Your task to perform on an android device: What's on my calendar today? Image 0: 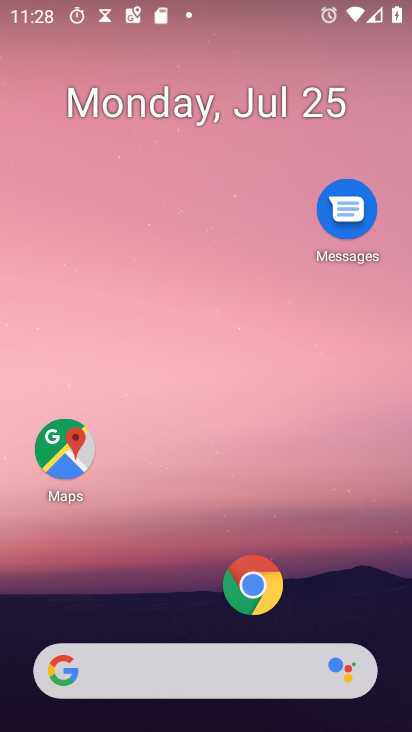
Step 0: press home button
Your task to perform on an android device: What's on my calendar today? Image 1: 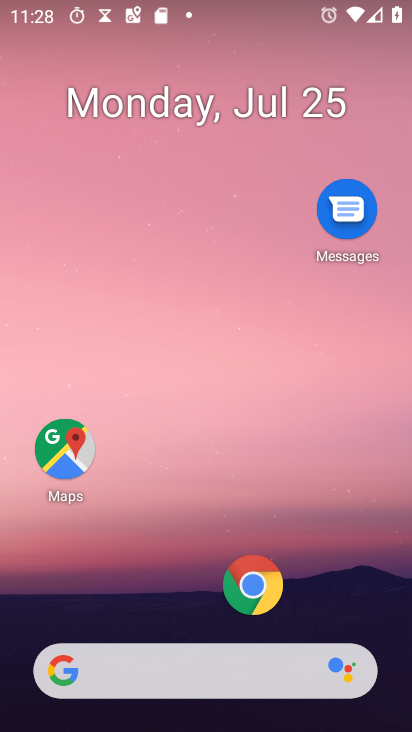
Step 1: drag from (122, 667) to (309, 31)
Your task to perform on an android device: What's on my calendar today? Image 2: 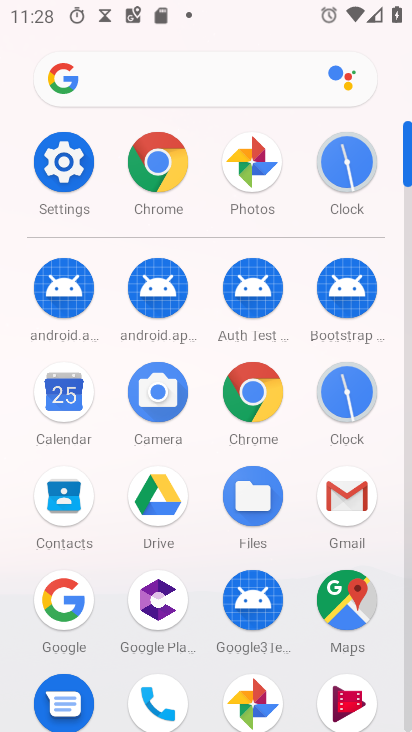
Step 2: click (61, 398)
Your task to perform on an android device: What's on my calendar today? Image 3: 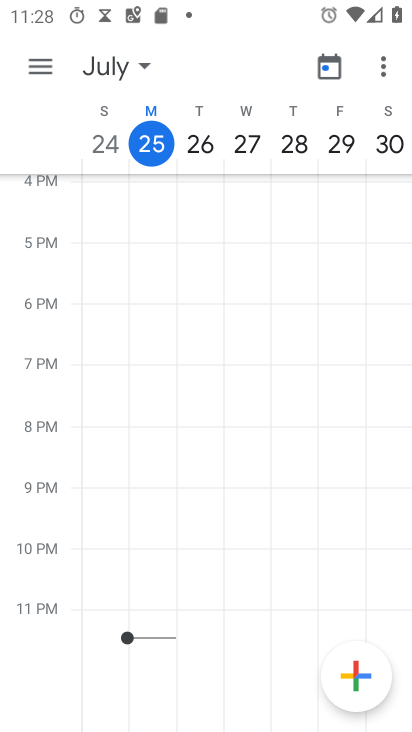
Step 3: click (112, 70)
Your task to perform on an android device: What's on my calendar today? Image 4: 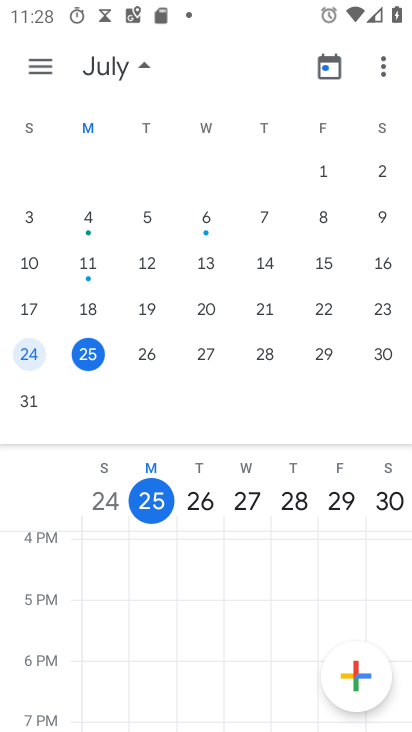
Step 4: click (93, 354)
Your task to perform on an android device: What's on my calendar today? Image 5: 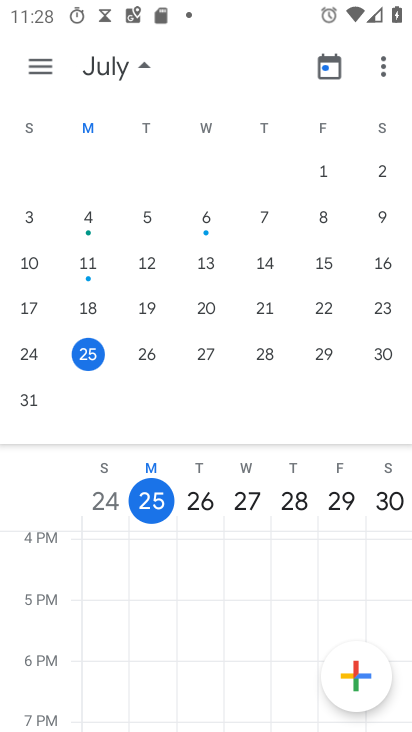
Step 5: click (52, 61)
Your task to perform on an android device: What's on my calendar today? Image 6: 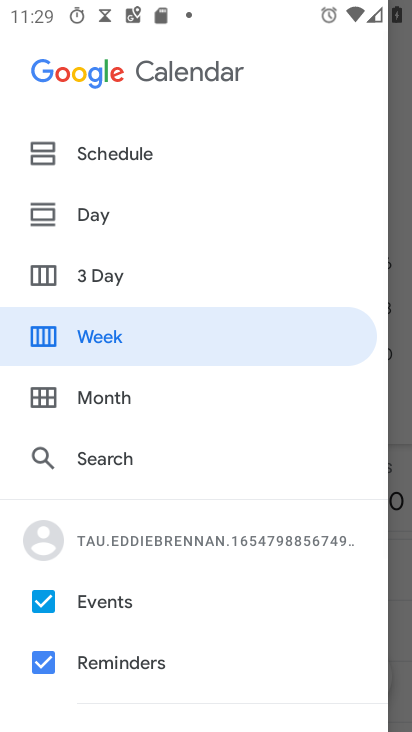
Step 6: click (104, 209)
Your task to perform on an android device: What's on my calendar today? Image 7: 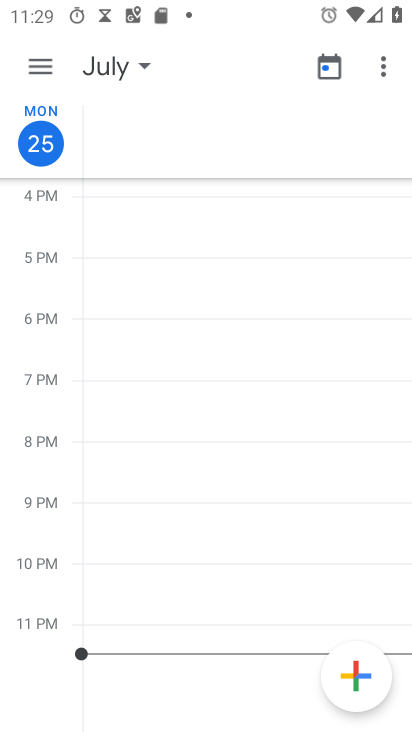
Step 7: click (40, 62)
Your task to perform on an android device: What's on my calendar today? Image 8: 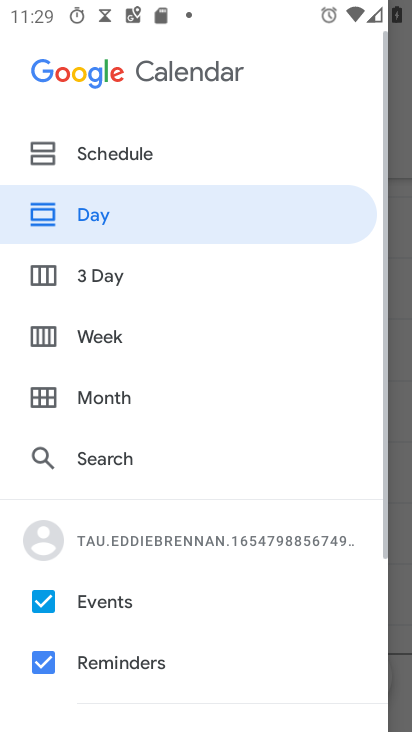
Step 8: click (126, 153)
Your task to perform on an android device: What's on my calendar today? Image 9: 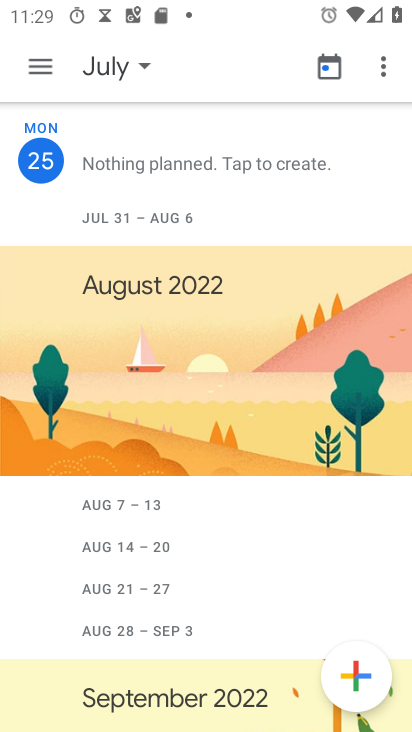
Step 9: task complete